Your task to perform on an android device: stop showing notifications on the lock screen Image 0: 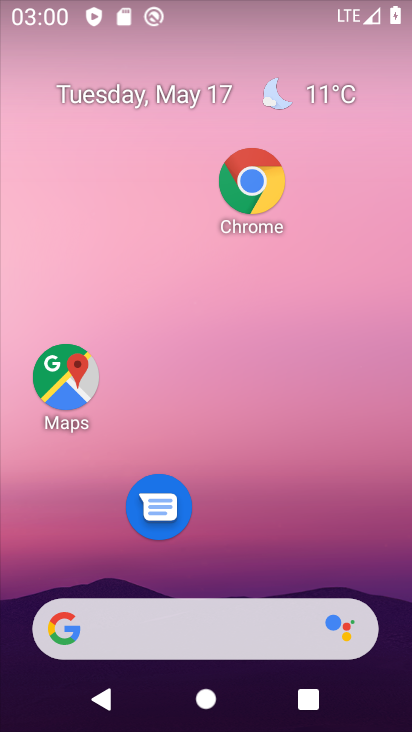
Step 0: drag from (181, 567) to (237, 85)
Your task to perform on an android device: stop showing notifications on the lock screen Image 1: 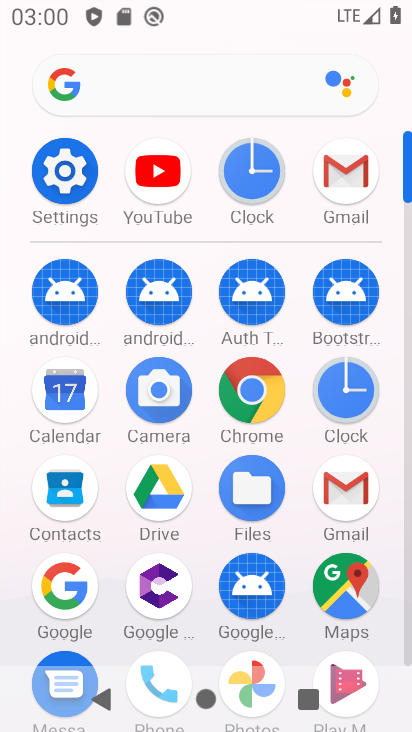
Step 1: click (51, 184)
Your task to perform on an android device: stop showing notifications on the lock screen Image 2: 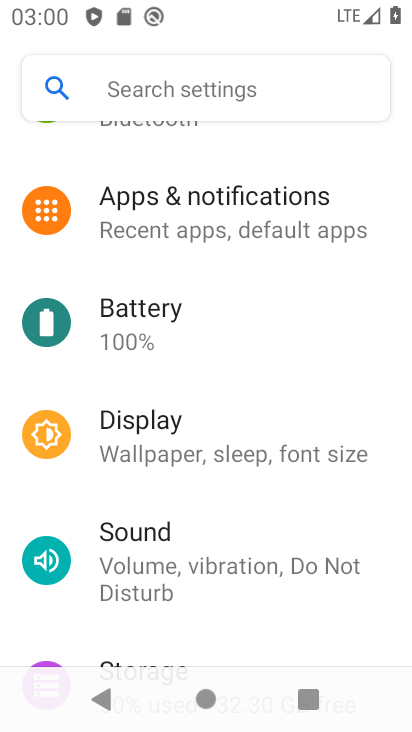
Step 2: click (208, 232)
Your task to perform on an android device: stop showing notifications on the lock screen Image 3: 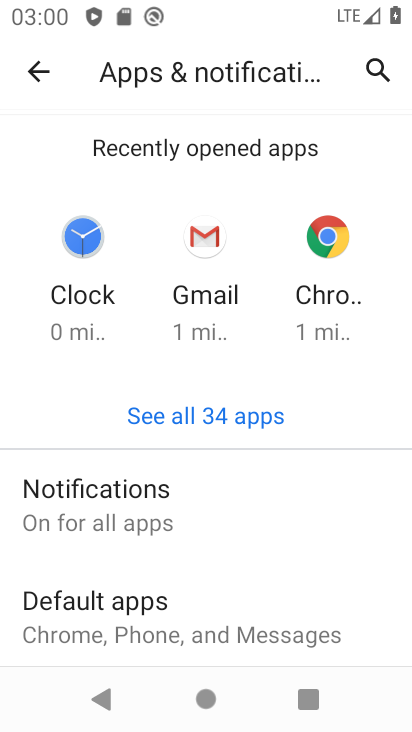
Step 3: click (140, 523)
Your task to perform on an android device: stop showing notifications on the lock screen Image 4: 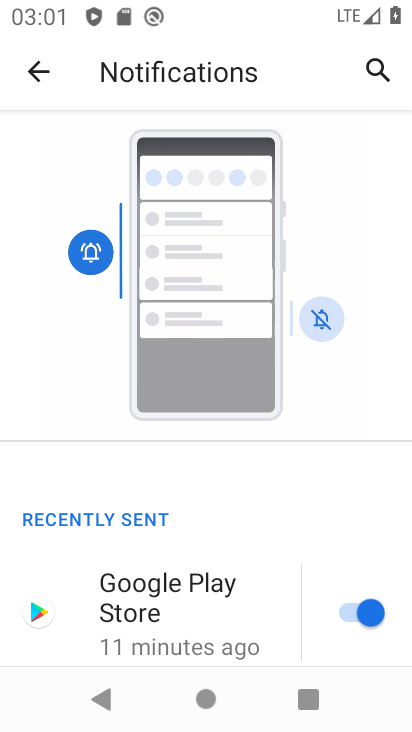
Step 4: drag from (157, 620) to (194, 243)
Your task to perform on an android device: stop showing notifications on the lock screen Image 5: 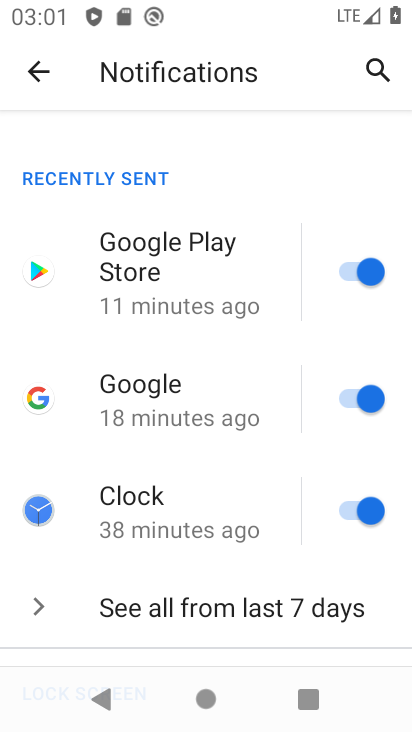
Step 5: drag from (160, 601) to (242, 218)
Your task to perform on an android device: stop showing notifications on the lock screen Image 6: 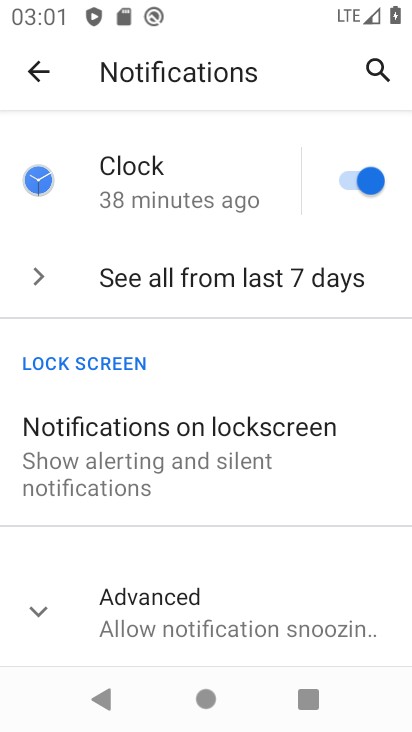
Step 6: click (206, 436)
Your task to perform on an android device: stop showing notifications on the lock screen Image 7: 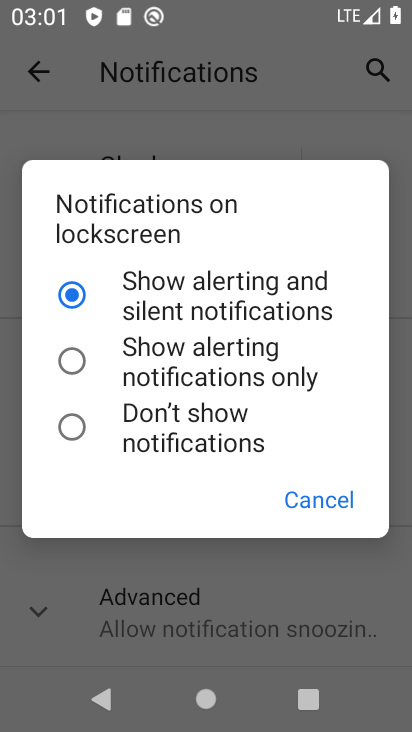
Step 7: click (148, 443)
Your task to perform on an android device: stop showing notifications on the lock screen Image 8: 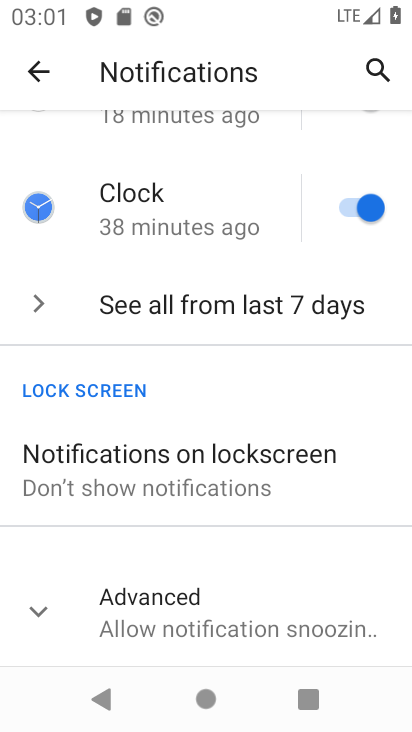
Step 8: task complete